Your task to perform on an android device: Go to Reddit.com Image 0: 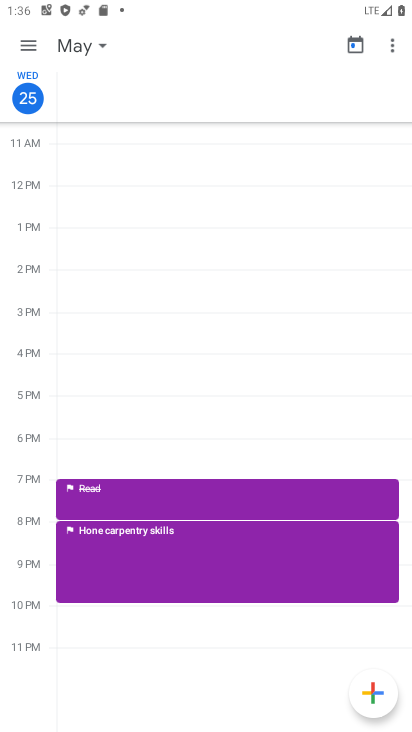
Step 0: press home button
Your task to perform on an android device: Go to Reddit.com Image 1: 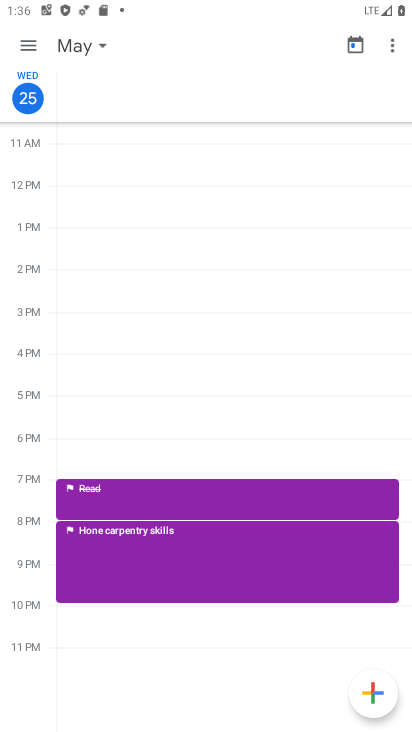
Step 1: press home button
Your task to perform on an android device: Go to Reddit.com Image 2: 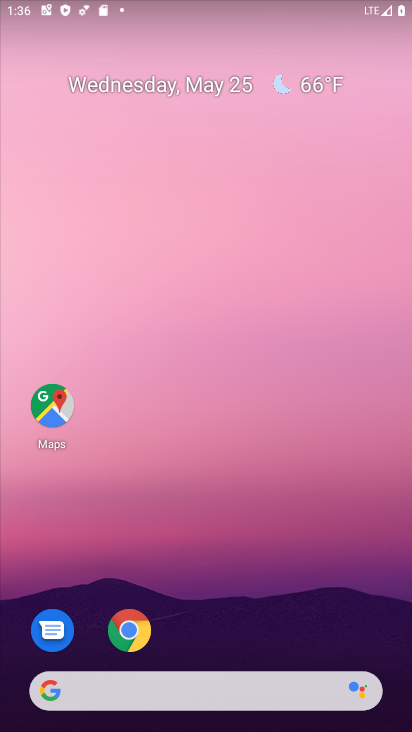
Step 2: click (124, 626)
Your task to perform on an android device: Go to Reddit.com Image 3: 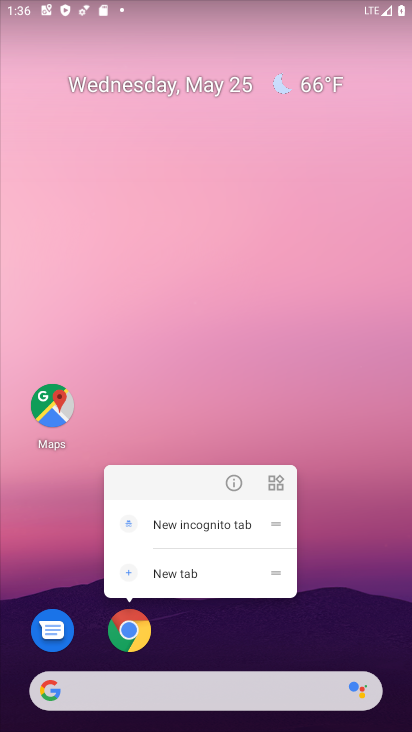
Step 3: click (127, 623)
Your task to perform on an android device: Go to Reddit.com Image 4: 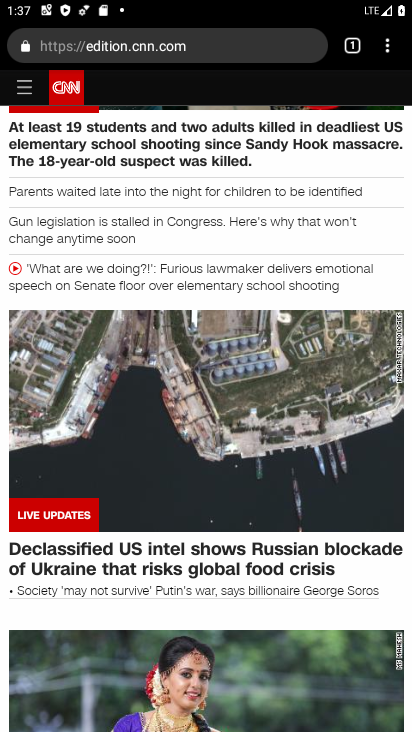
Step 4: click (353, 37)
Your task to perform on an android device: Go to Reddit.com Image 5: 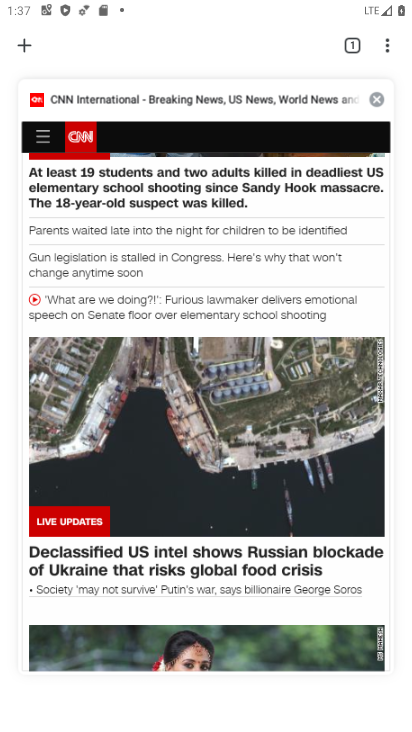
Step 5: click (377, 96)
Your task to perform on an android device: Go to Reddit.com Image 6: 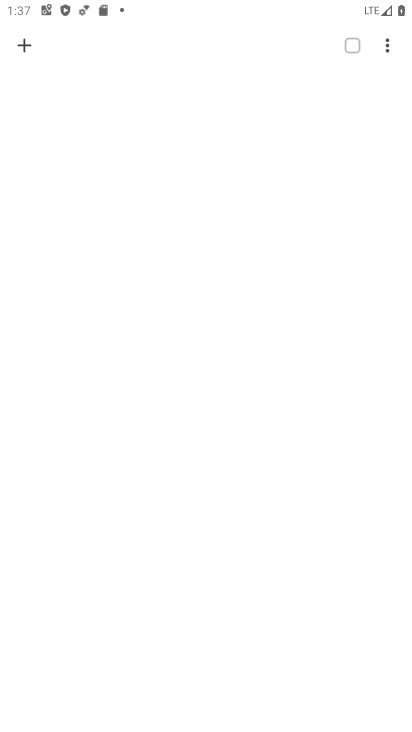
Step 6: click (39, 37)
Your task to perform on an android device: Go to Reddit.com Image 7: 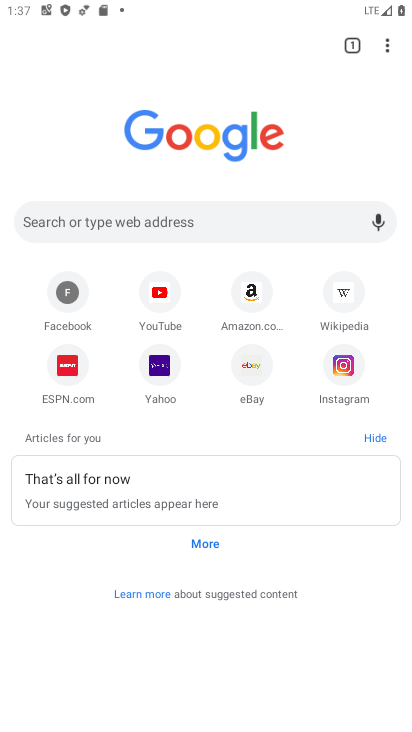
Step 7: click (128, 213)
Your task to perform on an android device: Go to Reddit.com Image 8: 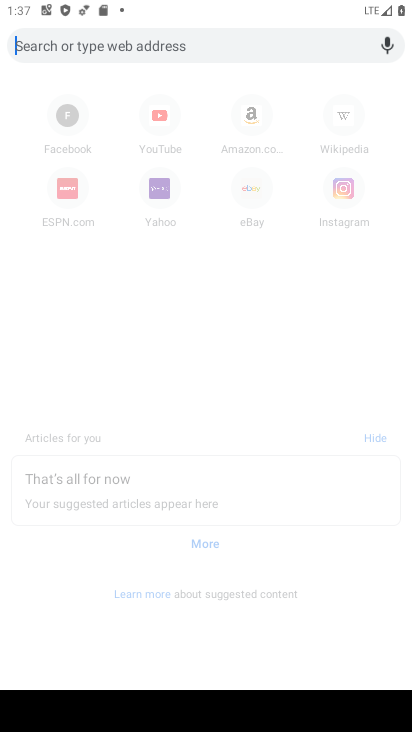
Step 8: type "reddit"
Your task to perform on an android device: Go to Reddit.com Image 9: 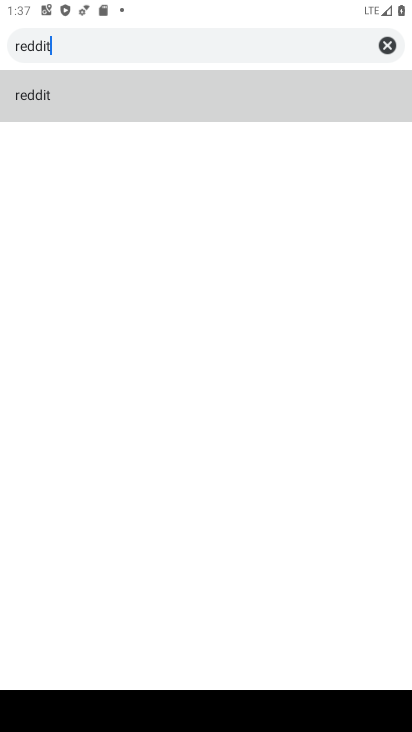
Step 9: type ""
Your task to perform on an android device: Go to Reddit.com Image 10: 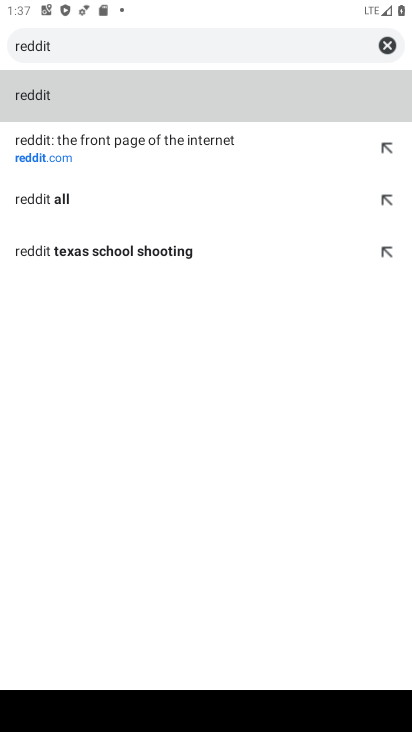
Step 10: click (108, 153)
Your task to perform on an android device: Go to Reddit.com Image 11: 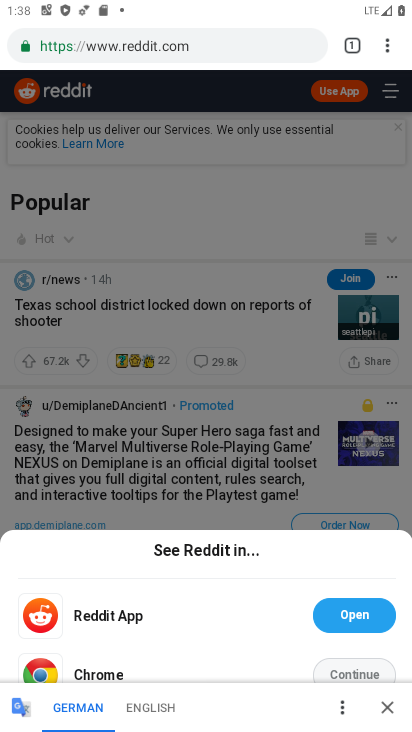
Step 11: click (369, 665)
Your task to perform on an android device: Go to Reddit.com Image 12: 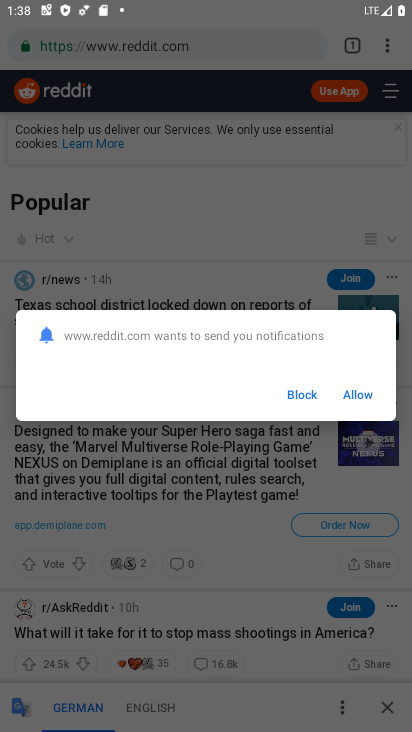
Step 12: click (362, 395)
Your task to perform on an android device: Go to Reddit.com Image 13: 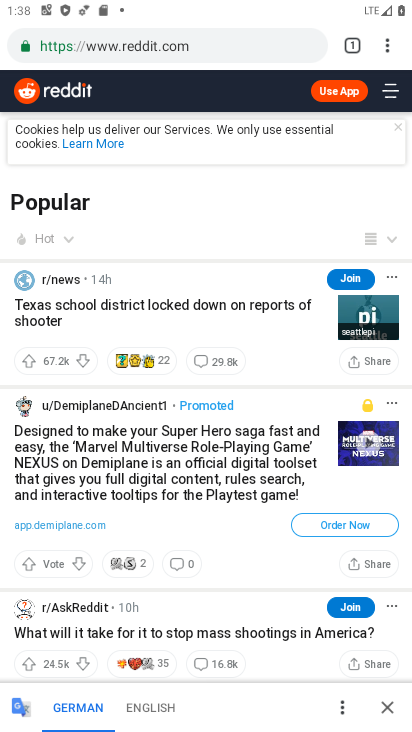
Step 13: task complete